Your task to perform on an android device: open app "ZOOM Cloud Meetings" (install if not already installed) Image 0: 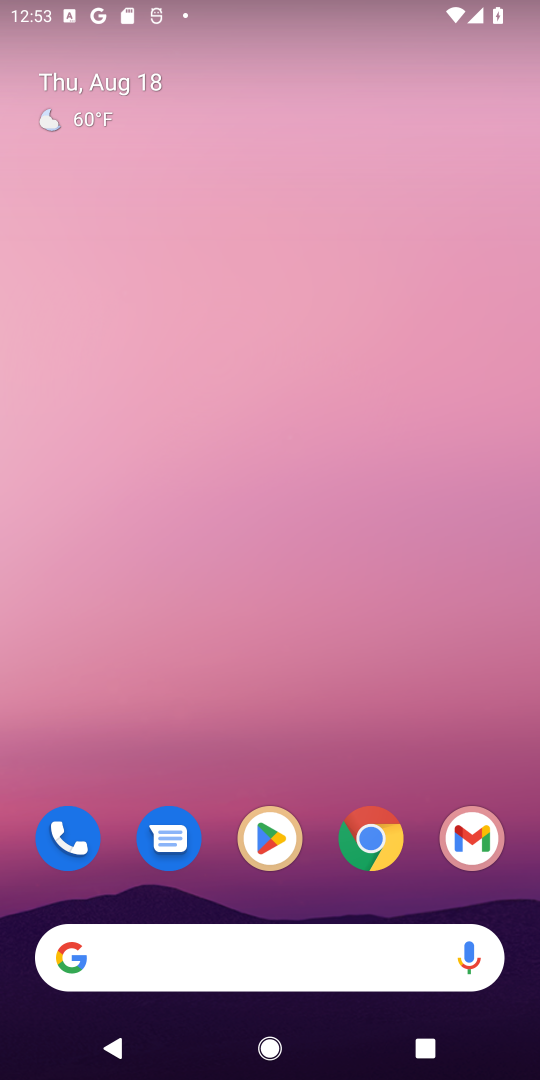
Step 0: click (252, 838)
Your task to perform on an android device: open app "ZOOM Cloud Meetings" (install if not already installed) Image 1: 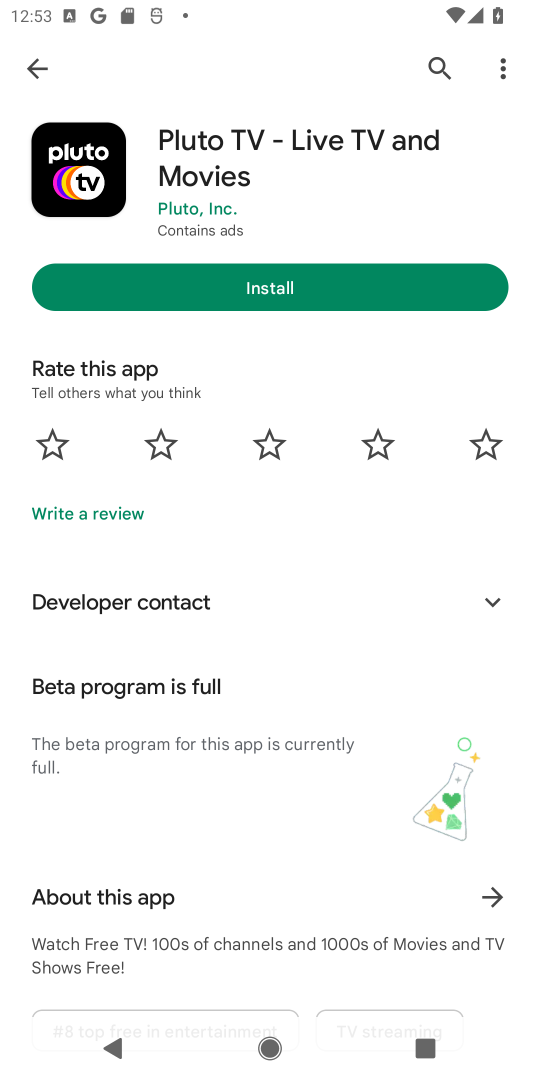
Step 1: click (435, 69)
Your task to perform on an android device: open app "ZOOM Cloud Meetings" (install if not already installed) Image 2: 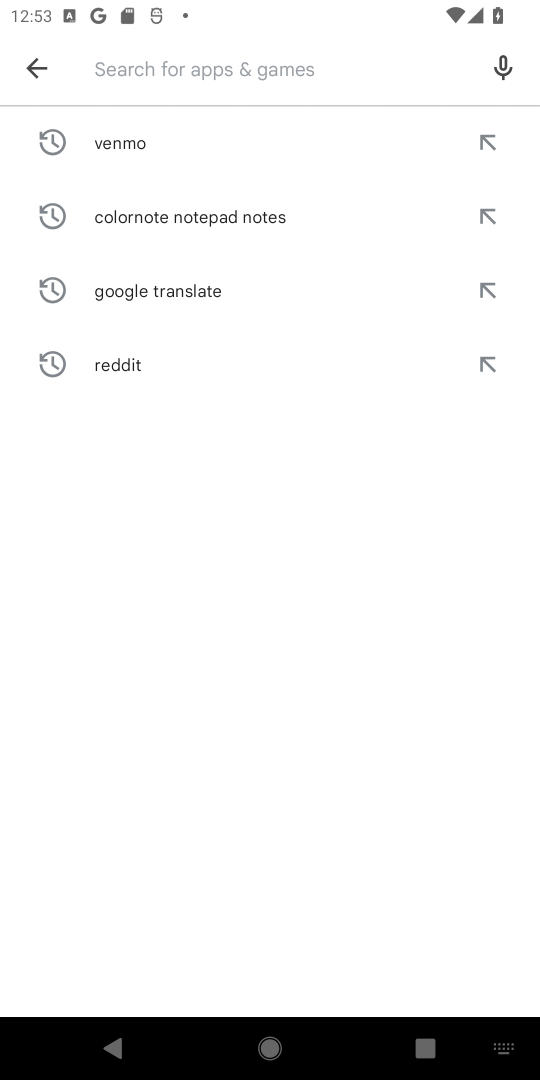
Step 2: type "ZOOM Cloud Meetings"
Your task to perform on an android device: open app "ZOOM Cloud Meetings" (install if not already installed) Image 3: 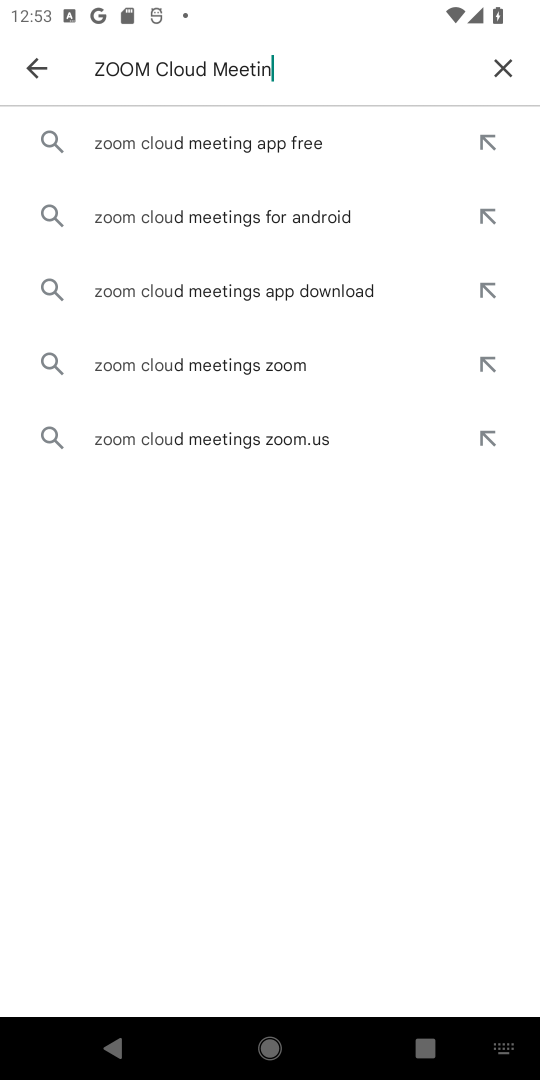
Step 3: type ""
Your task to perform on an android device: open app "ZOOM Cloud Meetings" (install if not already installed) Image 4: 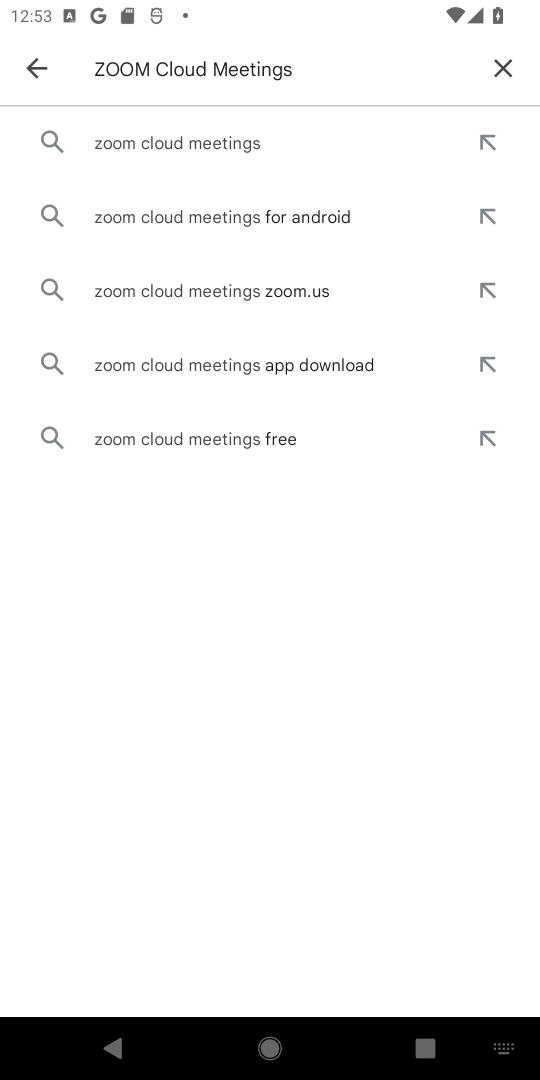
Step 4: click (228, 145)
Your task to perform on an android device: open app "ZOOM Cloud Meetings" (install if not already installed) Image 5: 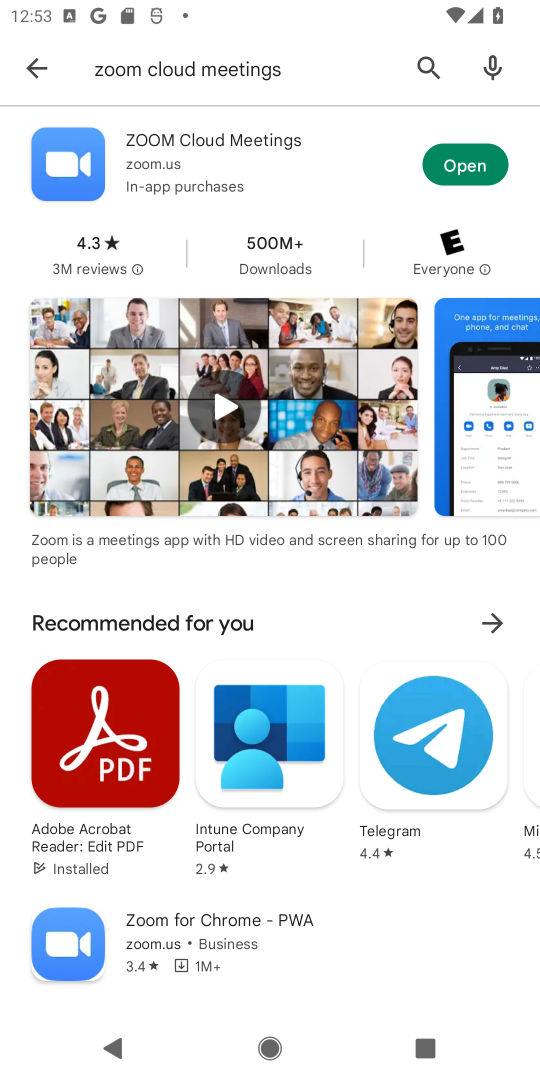
Step 5: click (470, 152)
Your task to perform on an android device: open app "ZOOM Cloud Meetings" (install if not already installed) Image 6: 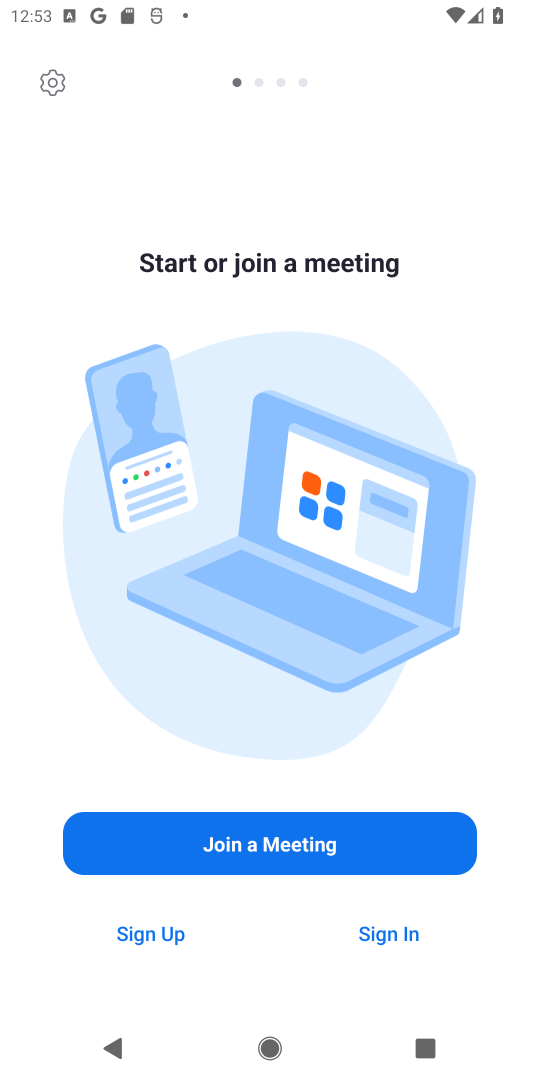
Step 6: task complete